Your task to perform on an android device: snooze an email in the gmail app Image 0: 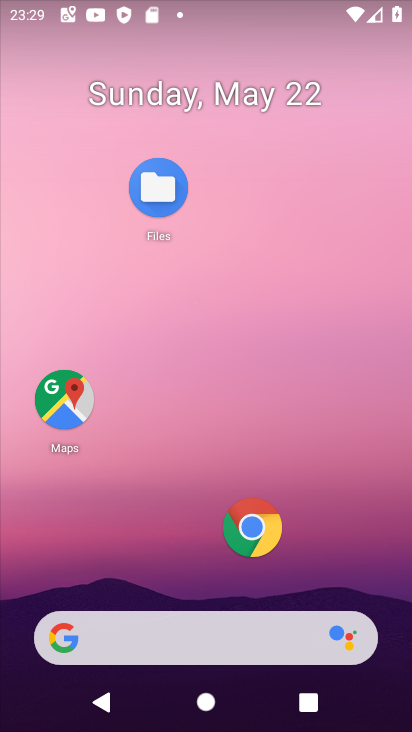
Step 0: drag from (319, 526) to (181, 36)
Your task to perform on an android device: snooze an email in the gmail app Image 1: 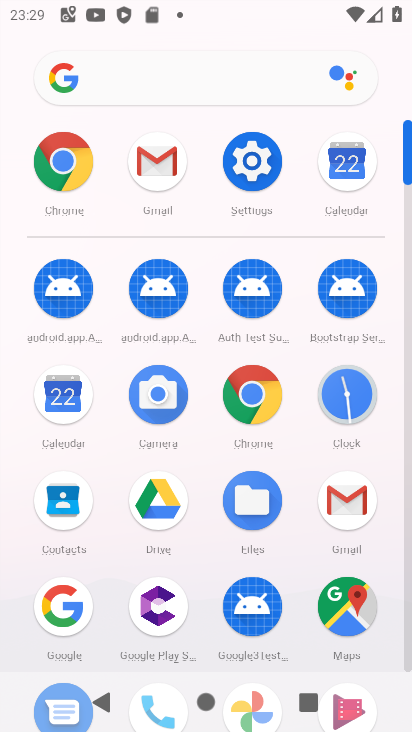
Step 1: click (152, 150)
Your task to perform on an android device: snooze an email in the gmail app Image 2: 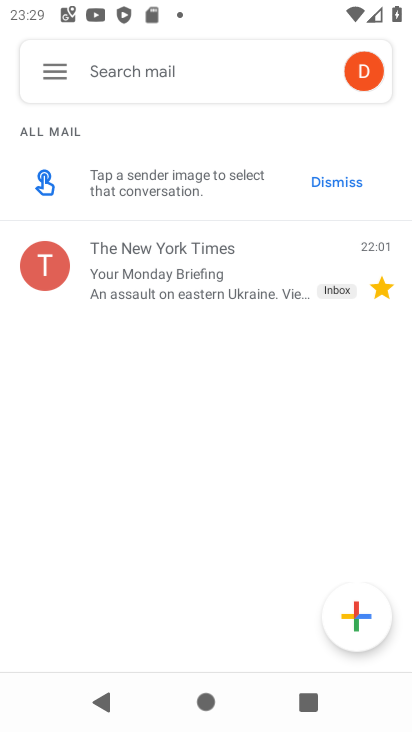
Step 2: click (152, 150)
Your task to perform on an android device: snooze an email in the gmail app Image 3: 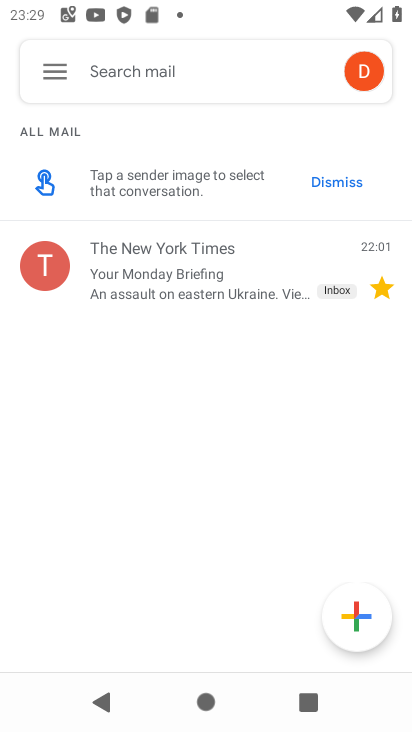
Step 3: click (57, 71)
Your task to perform on an android device: snooze an email in the gmail app Image 4: 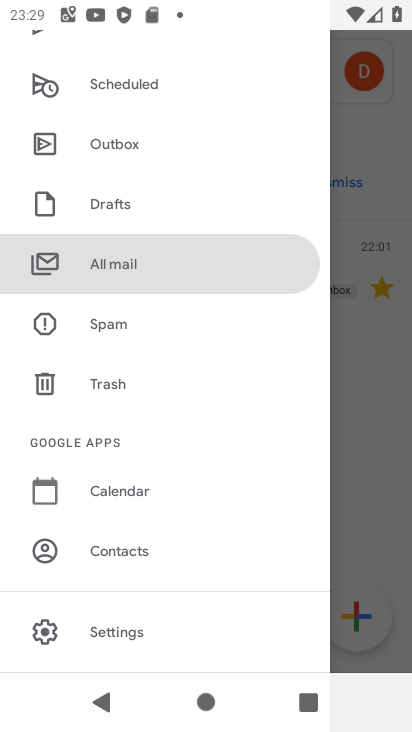
Step 4: click (355, 397)
Your task to perform on an android device: snooze an email in the gmail app Image 5: 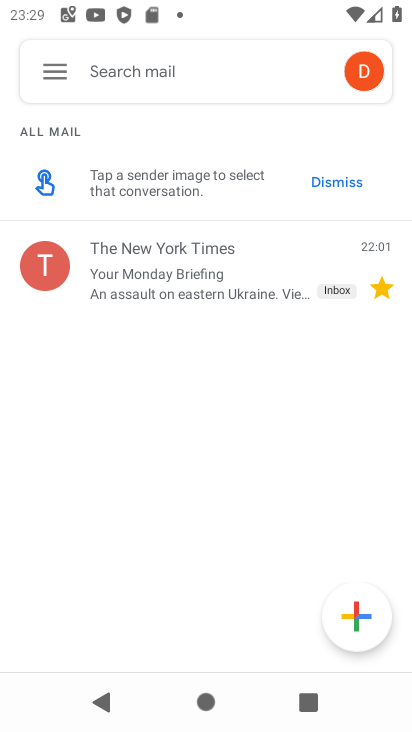
Step 5: click (196, 256)
Your task to perform on an android device: snooze an email in the gmail app Image 6: 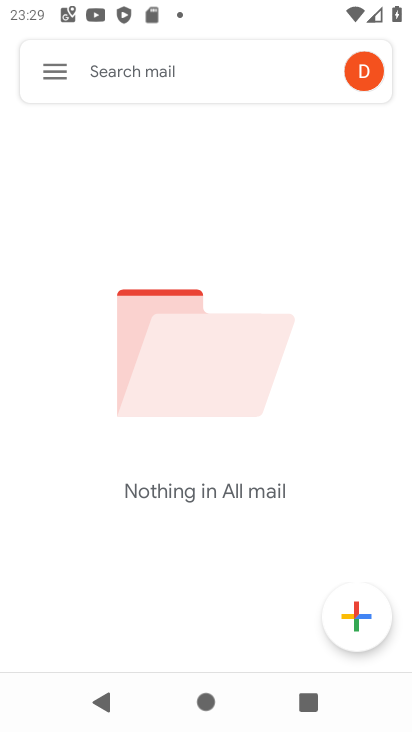
Step 6: click (57, 71)
Your task to perform on an android device: snooze an email in the gmail app Image 7: 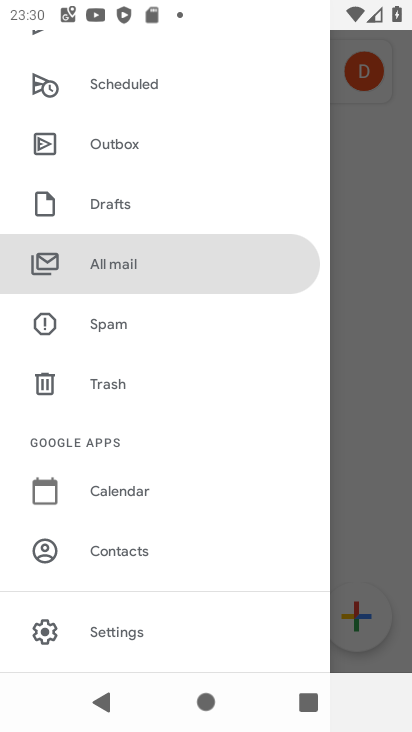
Step 7: click (377, 381)
Your task to perform on an android device: snooze an email in the gmail app Image 8: 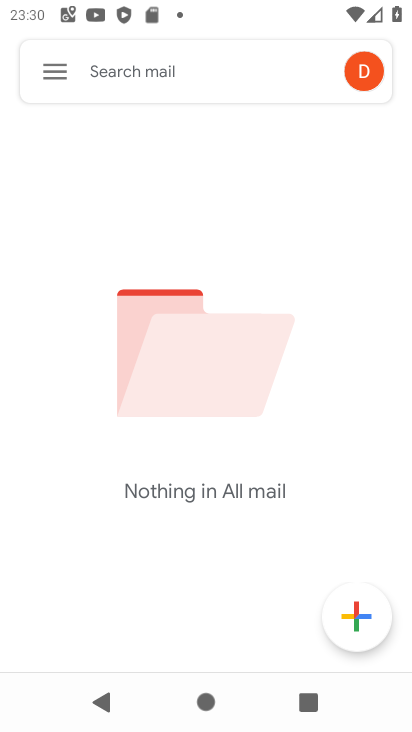
Step 8: task complete